Your task to perform on an android device: Open ESPN.com Image 0: 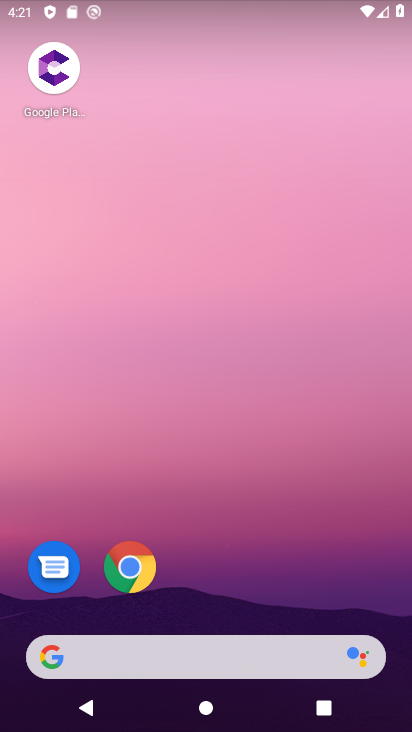
Step 0: click (132, 567)
Your task to perform on an android device: Open ESPN.com Image 1: 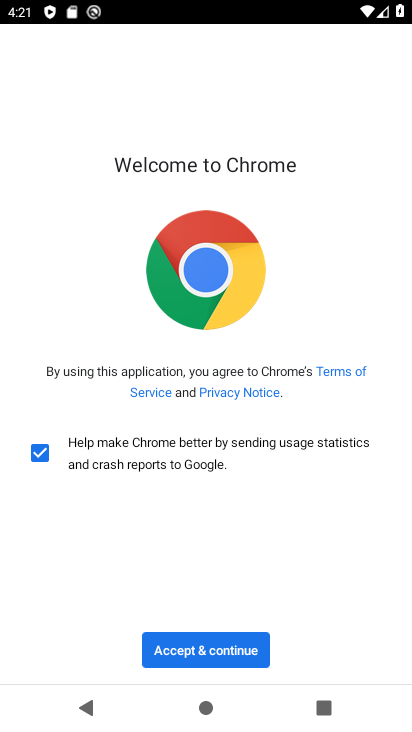
Step 1: click (191, 644)
Your task to perform on an android device: Open ESPN.com Image 2: 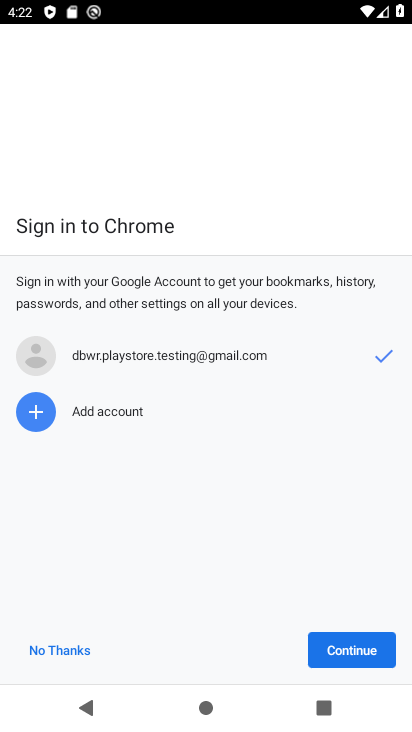
Step 2: click (345, 650)
Your task to perform on an android device: Open ESPN.com Image 3: 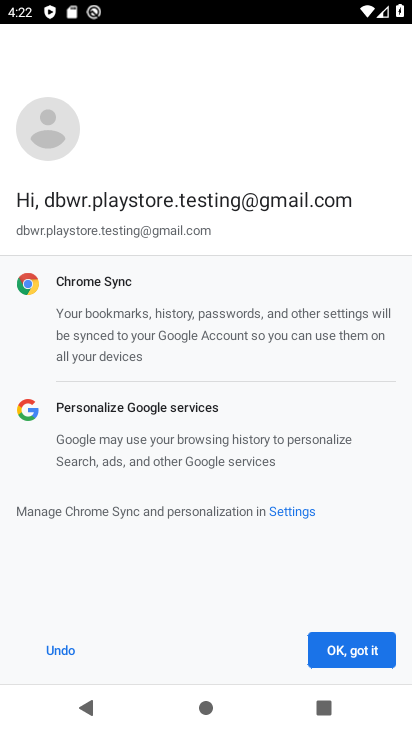
Step 3: click (345, 650)
Your task to perform on an android device: Open ESPN.com Image 4: 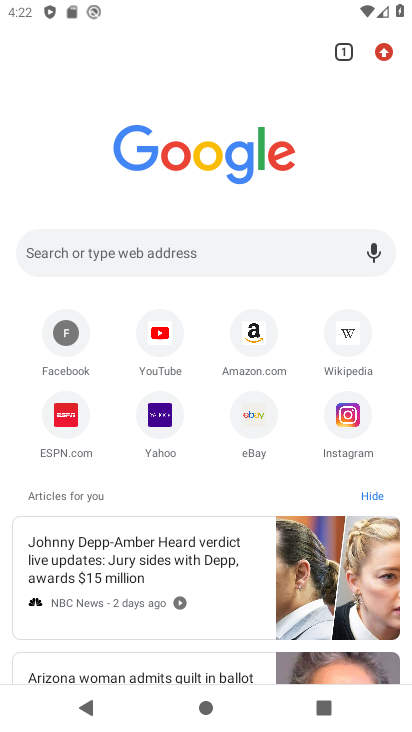
Step 4: click (67, 418)
Your task to perform on an android device: Open ESPN.com Image 5: 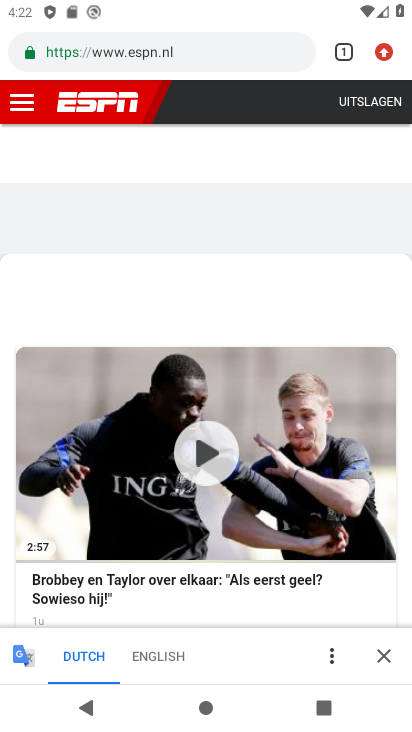
Step 5: task complete